Your task to perform on an android device: Go to location settings Image 0: 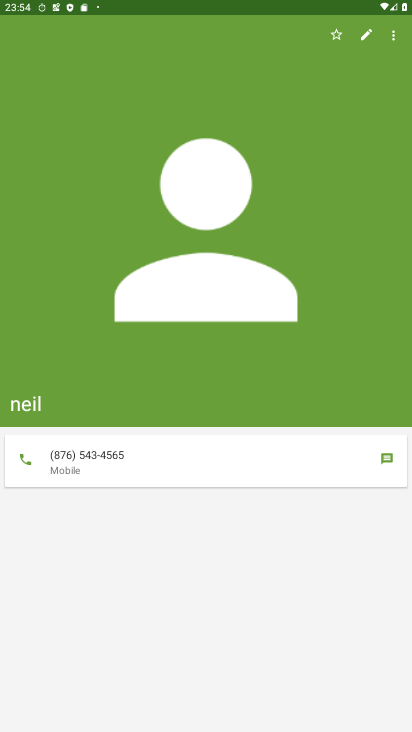
Step 0: press home button
Your task to perform on an android device: Go to location settings Image 1: 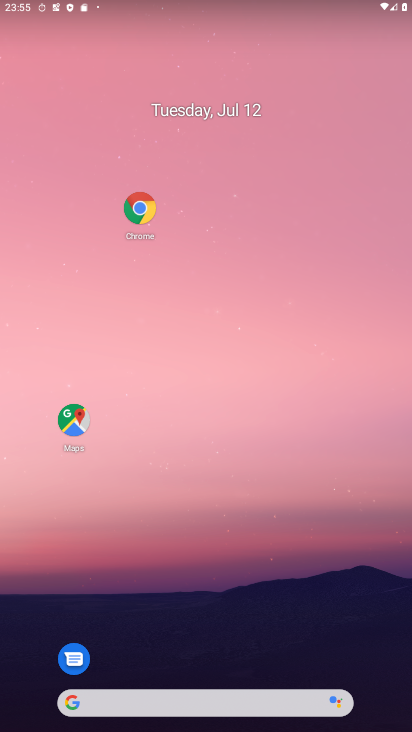
Step 1: drag from (224, 664) to (292, 0)
Your task to perform on an android device: Go to location settings Image 2: 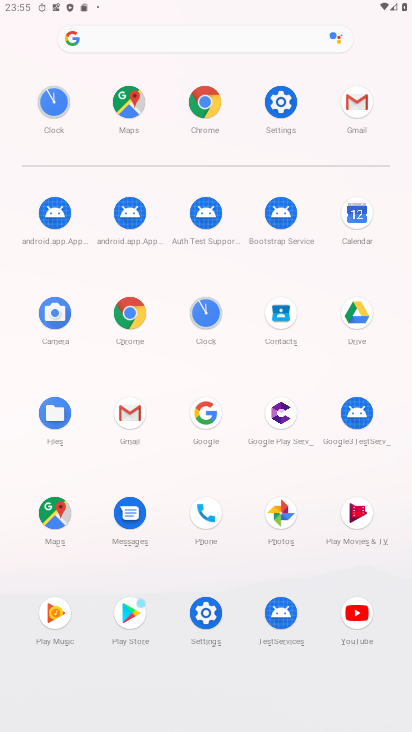
Step 2: click (268, 106)
Your task to perform on an android device: Go to location settings Image 3: 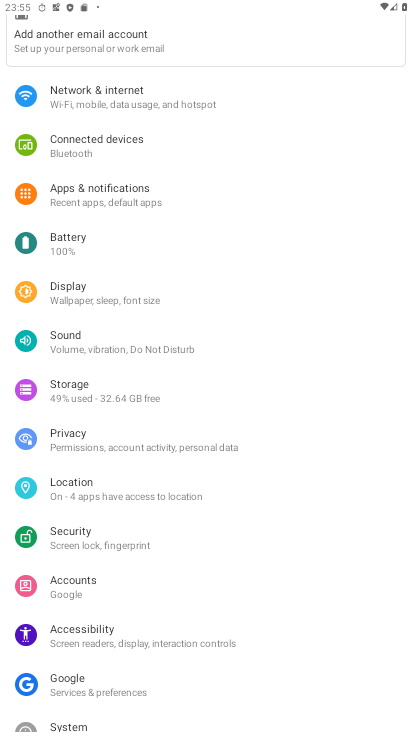
Step 3: click (100, 491)
Your task to perform on an android device: Go to location settings Image 4: 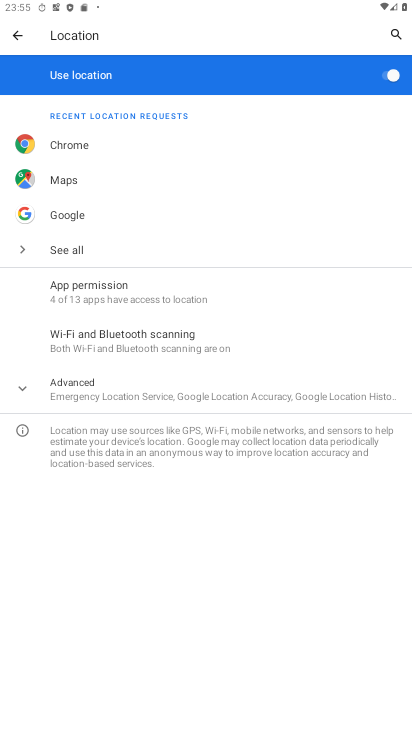
Step 4: task complete